Your task to perform on an android device: Open Google Maps Image 0: 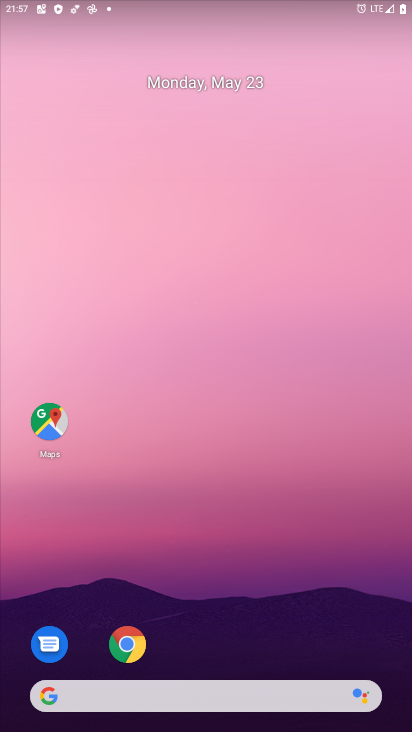
Step 0: click (49, 420)
Your task to perform on an android device: Open Google Maps Image 1: 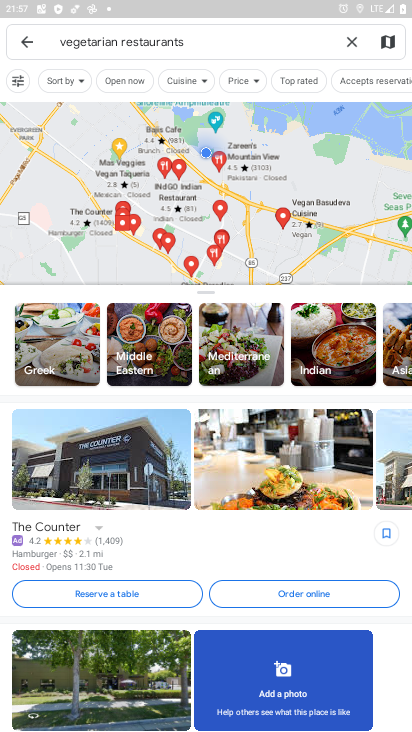
Step 1: click (346, 43)
Your task to perform on an android device: Open Google Maps Image 2: 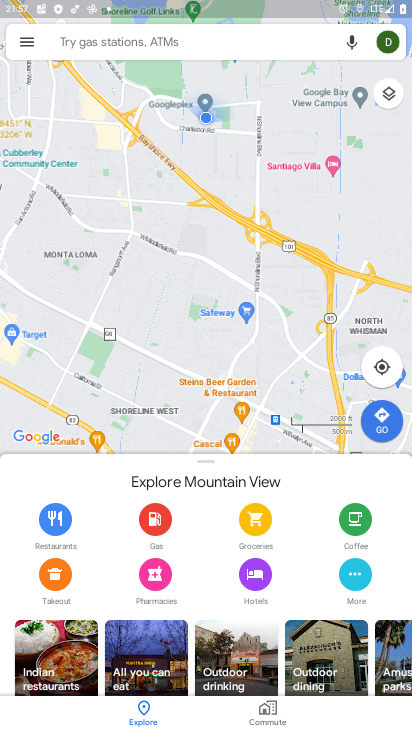
Step 2: task complete